Your task to perform on an android device: Go to calendar. Show me events next week Image 0: 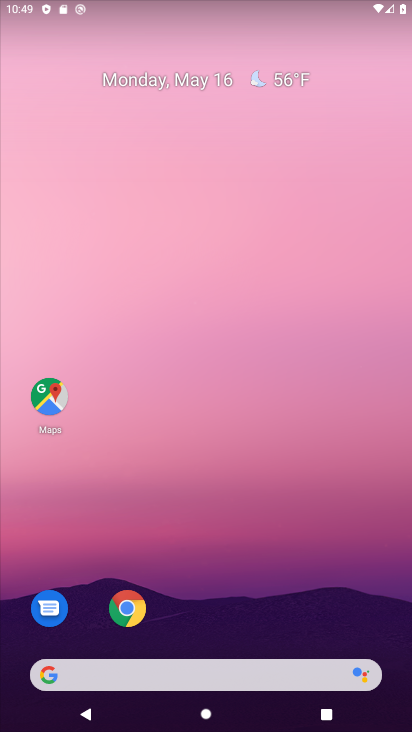
Step 0: drag from (279, 604) to (331, 271)
Your task to perform on an android device: Go to calendar. Show me events next week Image 1: 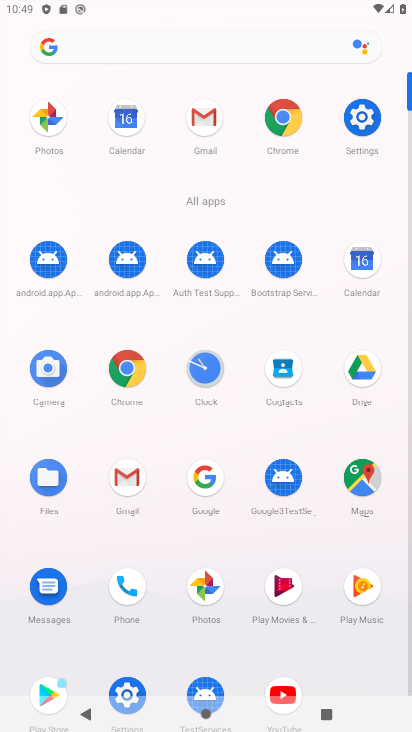
Step 1: click (356, 273)
Your task to perform on an android device: Go to calendar. Show me events next week Image 2: 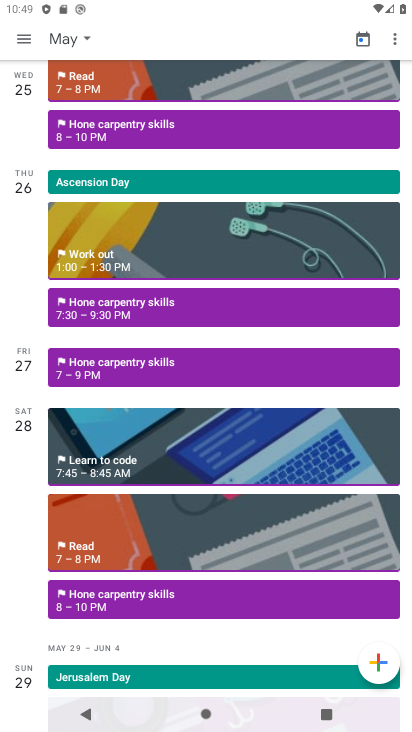
Step 2: task complete